Your task to perform on an android device: Go to display settings Image 0: 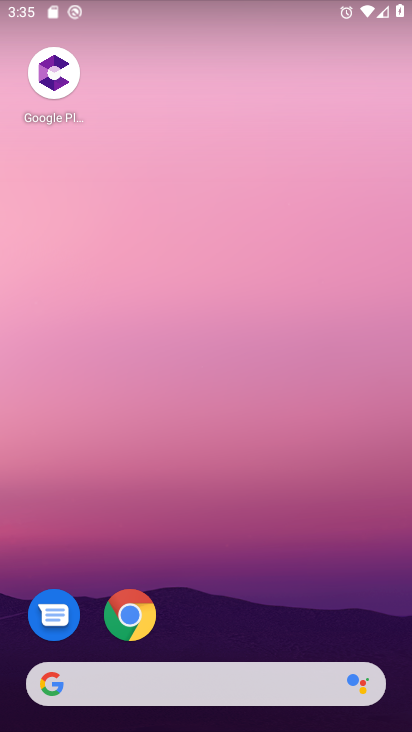
Step 0: drag from (315, 630) to (264, 7)
Your task to perform on an android device: Go to display settings Image 1: 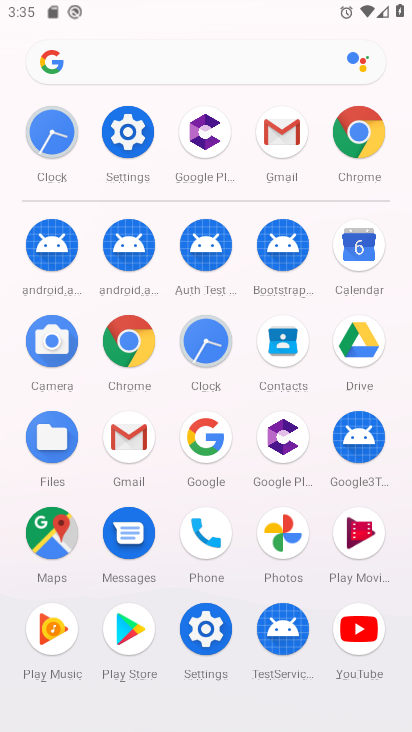
Step 1: click (132, 130)
Your task to perform on an android device: Go to display settings Image 2: 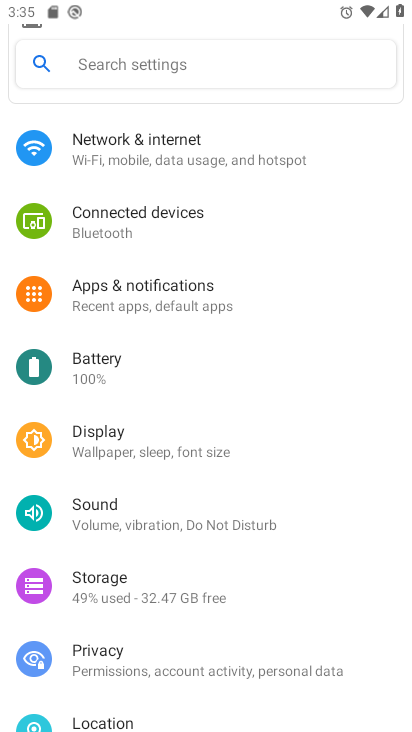
Step 2: click (107, 431)
Your task to perform on an android device: Go to display settings Image 3: 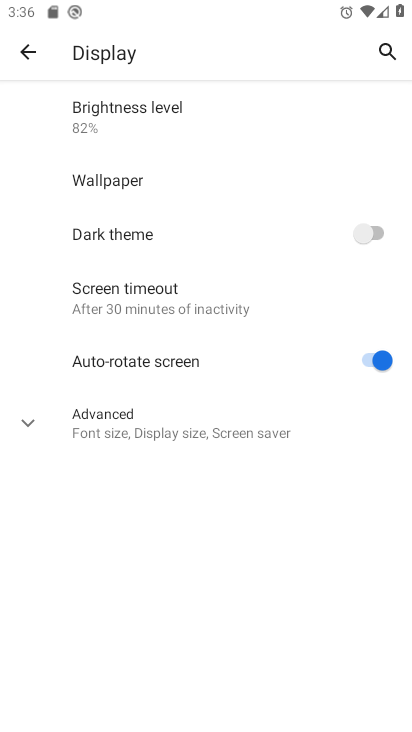
Step 3: task complete